Your task to perform on an android device: turn on showing notifications on the lock screen Image 0: 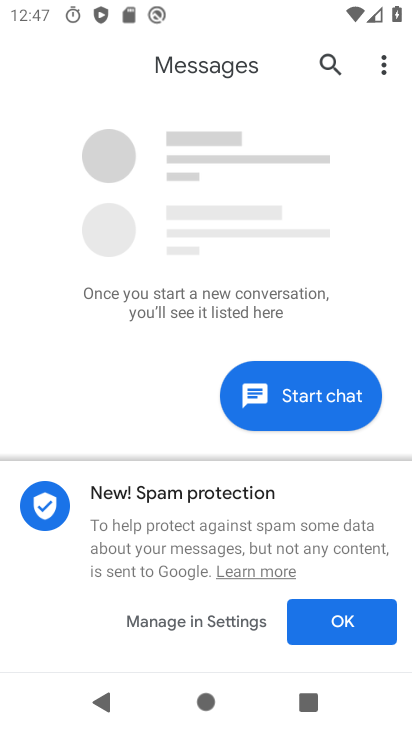
Step 0: press home button
Your task to perform on an android device: turn on showing notifications on the lock screen Image 1: 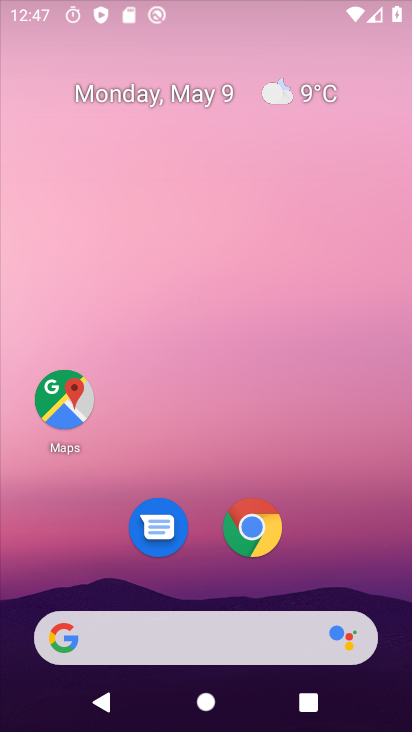
Step 1: drag from (139, 584) to (250, 27)
Your task to perform on an android device: turn on showing notifications on the lock screen Image 2: 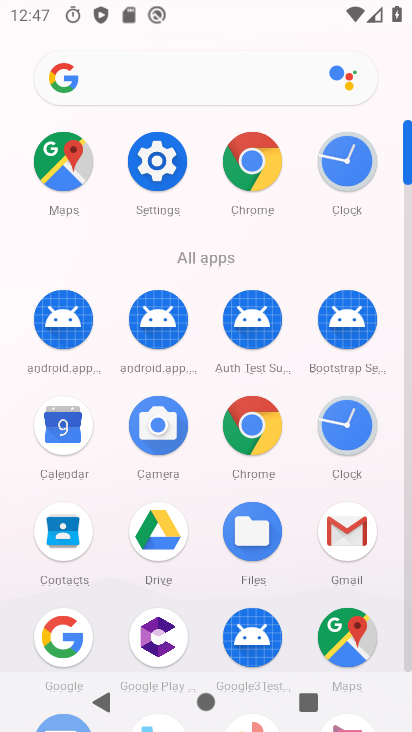
Step 2: click (157, 165)
Your task to perform on an android device: turn on showing notifications on the lock screen Image 3: 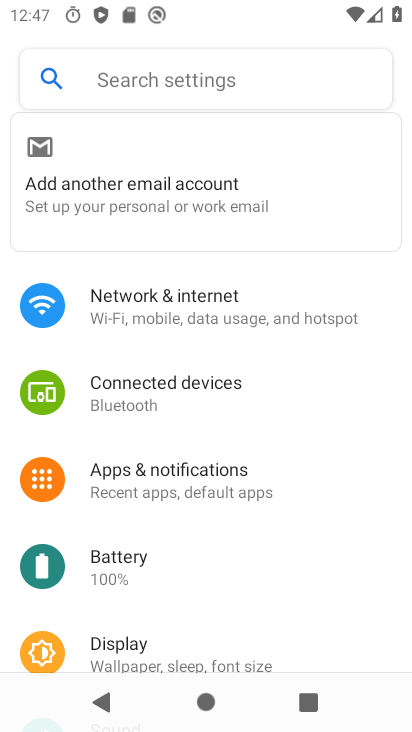
Step 3: click (166, 478)
Your task to perform on an android device: turn on showing notifications on the lock screen Image 4: 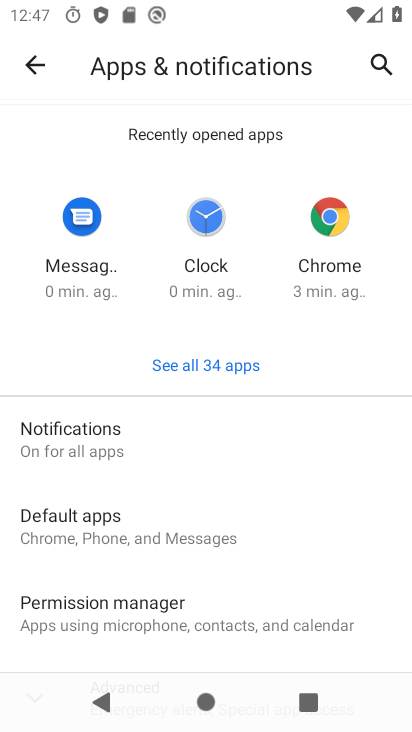
Step 4: click (149, 438)
Your task to perform on an android device: turn on showing notifications on the lock screen Image 5: 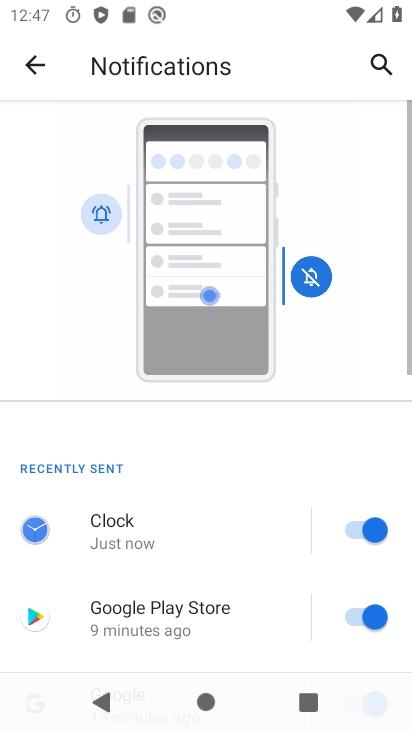
Step 5: drag from (194, 522) to (232, 39)
Your task to perform on an android device: turn on showing notifications on the lock screen Image 6: 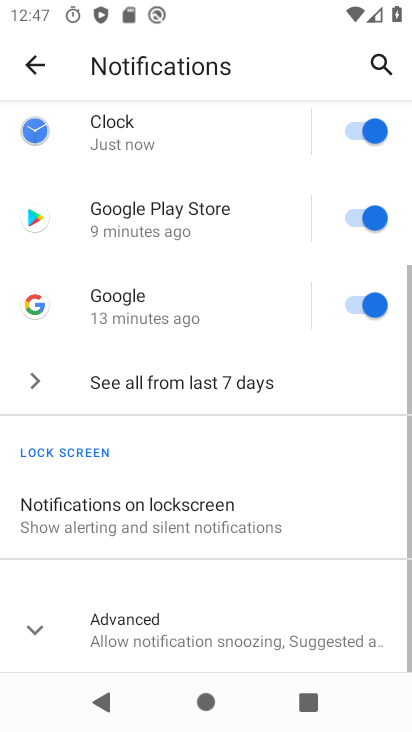
Step 6: drag from (133, 578) to (238, 132)
Your task to perform on an android device: turn on showing notifications on the lock screen Image 7: 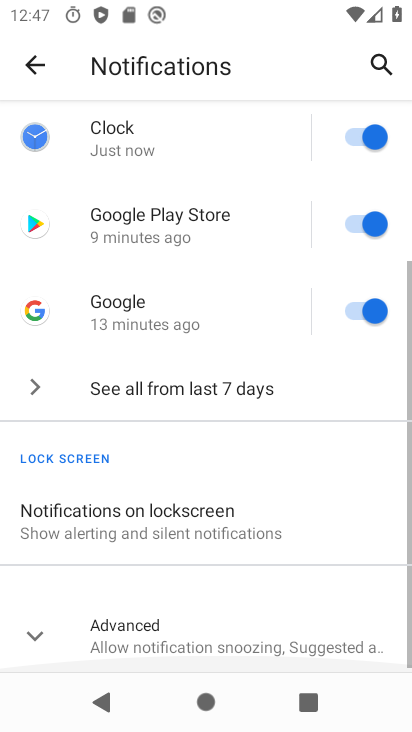
Step 7: click (128, 502)
Your task to perform on an android device: turn on showing notifications on the lock screen Image 8: 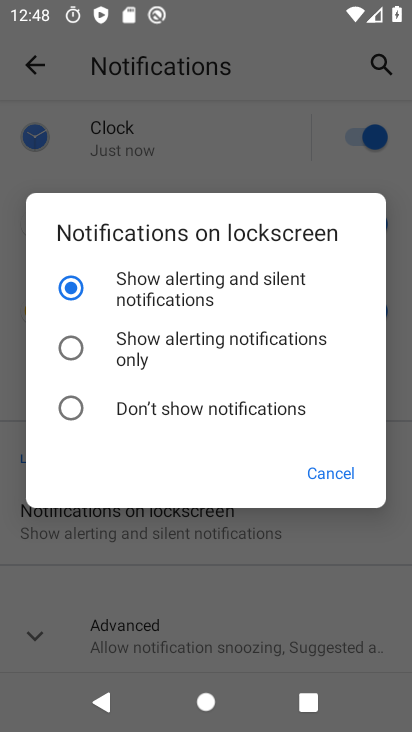
Step 8: click (72, 285)
Your task to perform on an android device: turn on showing notifications on the lock screen Image 9: 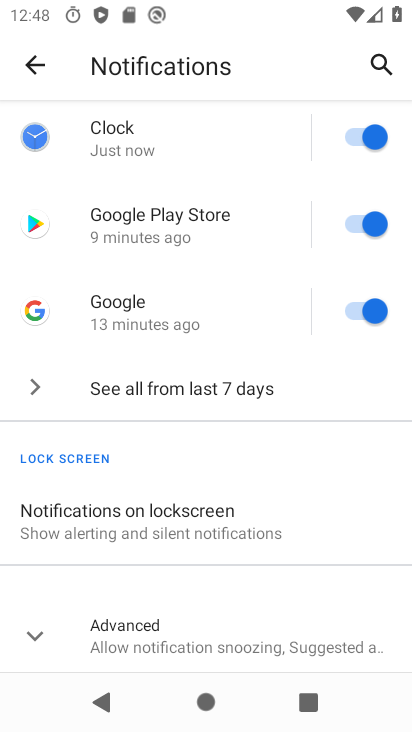
Step 9: task complete